Your task to perform on an android device: check data usage Image 0: 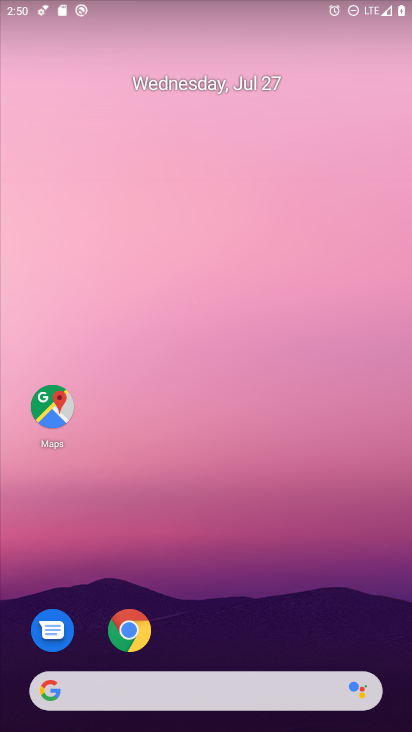
Step 0: drag from (404, 669) to (348, 164)
Your task to perform on an android device: check data usage Image 1: 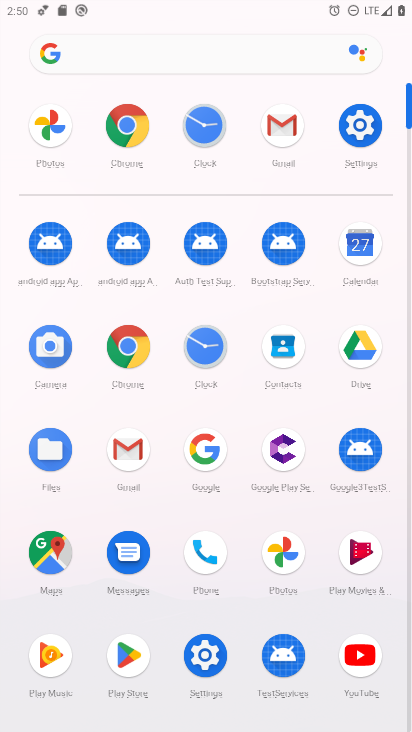
Step 1: click (206, 655)
Your task to perform on an android device: check data usage Image 2: 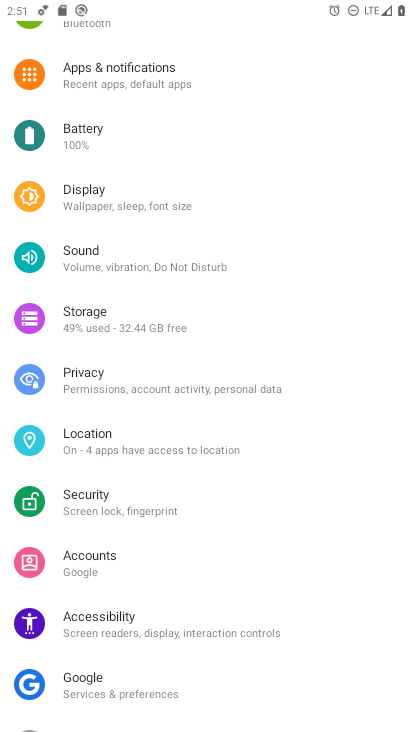
Step 2: drag from (289, 143) to (256, 413)
Your task to perform on an android device: check data usage Image 3: 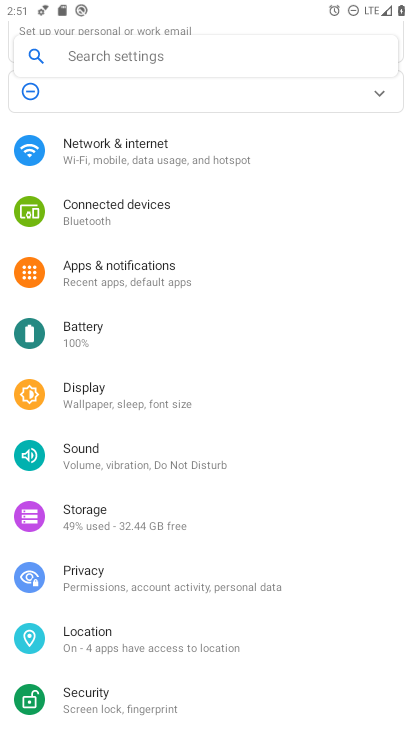
Step 3: click (111, 142)
Your task to perform on an android device: check data usage Image 4: 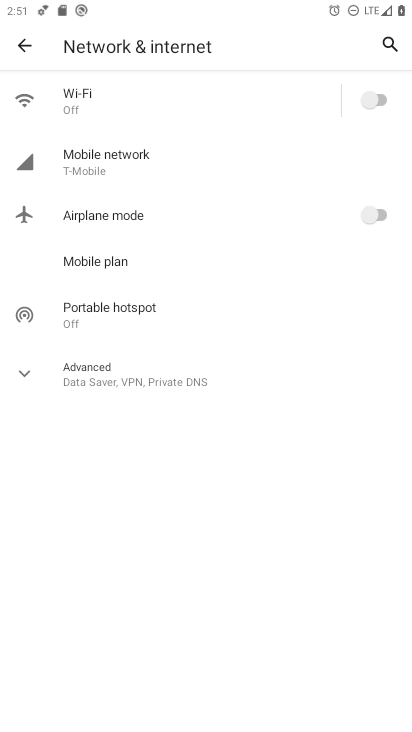
Step 4: click (96, 157)
Your task to perform on an android device: check data usage Image 5: 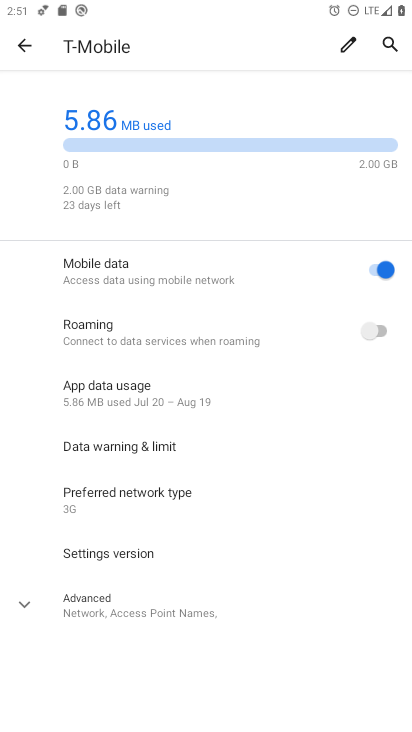
Step 5: task complete